Your task to perform on an android device: turn notification dots on Image 0: 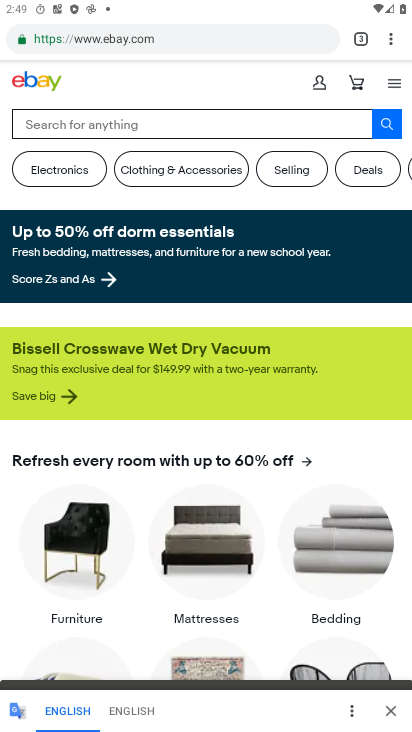
Step 0: press home button
Your task to perform on an android device: turn notification dots on Image 1: 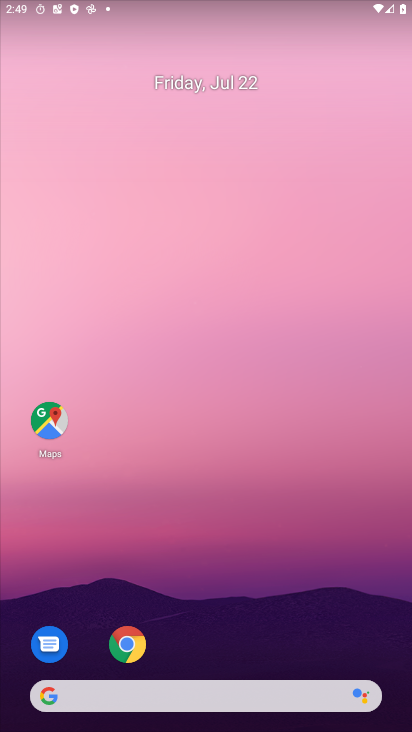
Step 1: drag from (225, 232) to (223, 10)
Your task to perform on an android device: turn notification dots on Image 2: 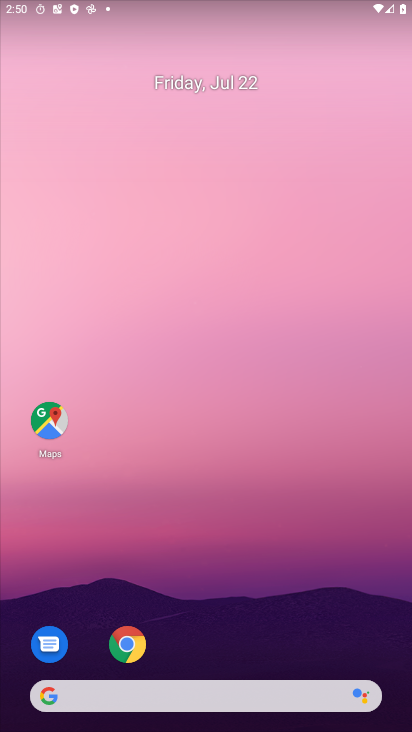
Step 2: drag from (159, 713) to (178, 169)
Your task to perform on an android device: turn notification dots on Image 3: 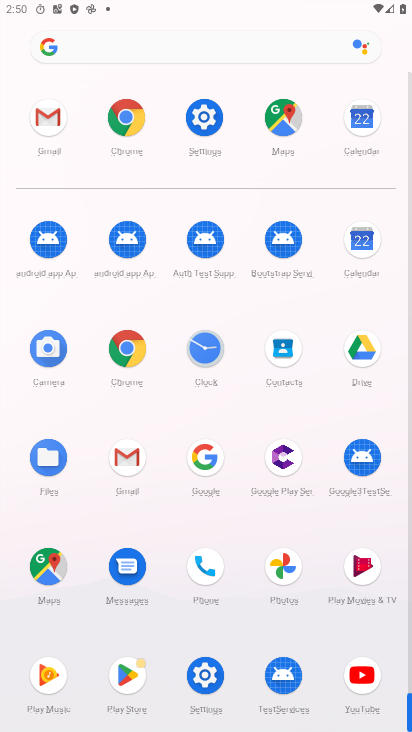
Step 3: click (209, 141)
Your task to perform on an android device: turn notification dots on Image 4: 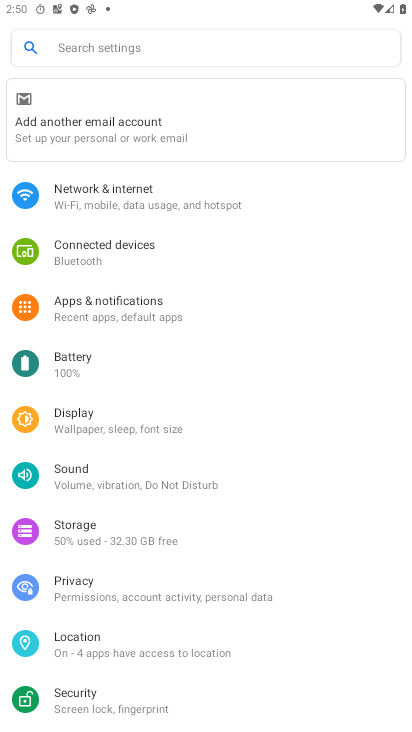
Step 4: click (153, 316)
Your task to perform on an android device: turn notification dots on Image 5: 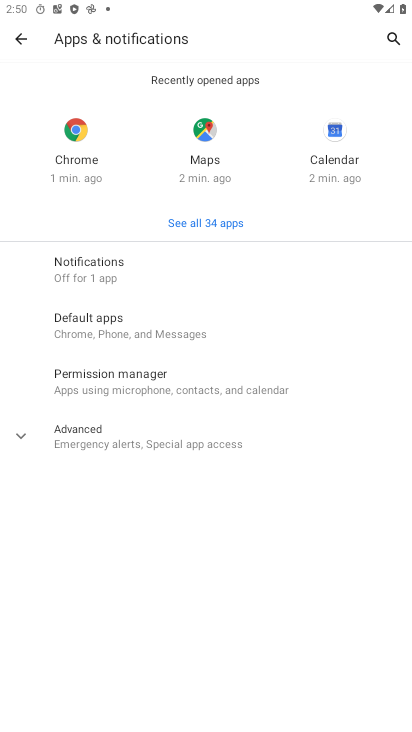
Step 5: click (147, 269)
Your task to perform on an android device: turn notification dots on Image 6: 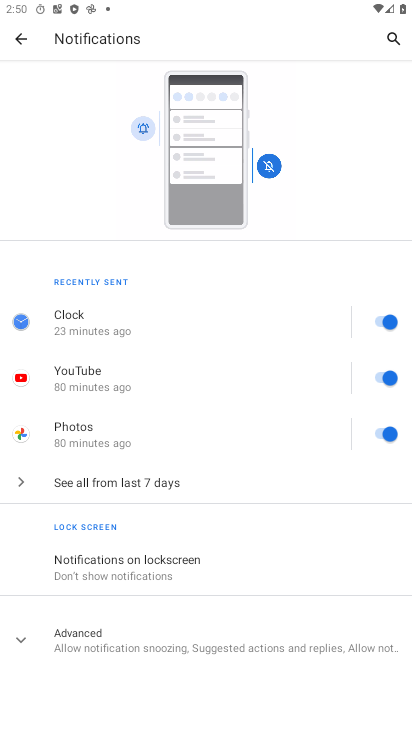
Step 6: click (161, 632)
Your task to perform on an android device: turn notification dots on Image 7: 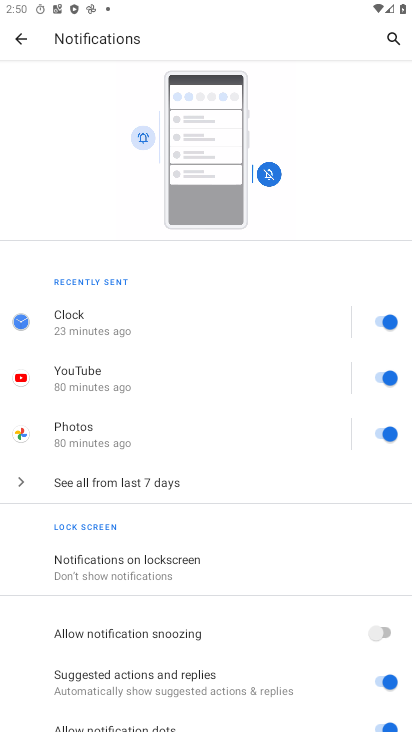
Step 7: task complete